Your task to perform on an android device: When is my next meeting? Image 0: 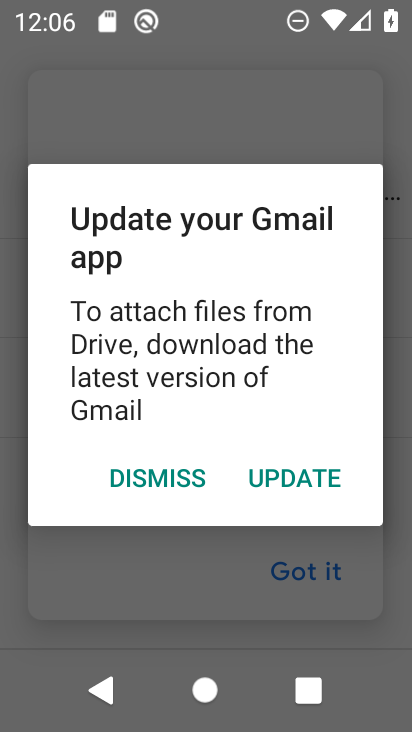
Step 0: press home button
Your task to perform on an android device: When is my next meeting? Image 1: 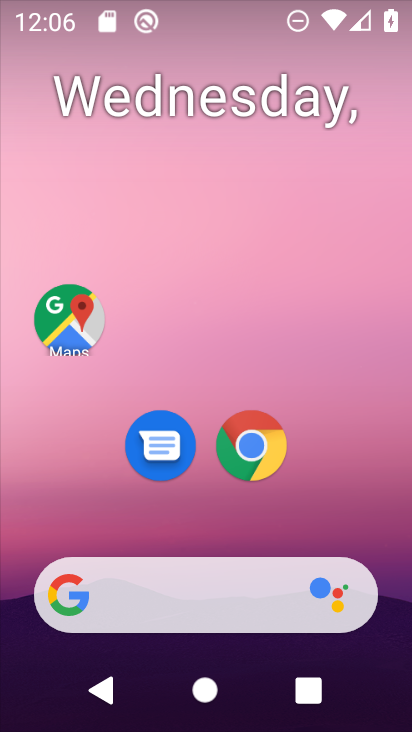
Step 1: drag from (359, 449) to (140, 0)
Your task to perform on an android device: When is my next meeting? Image 2: 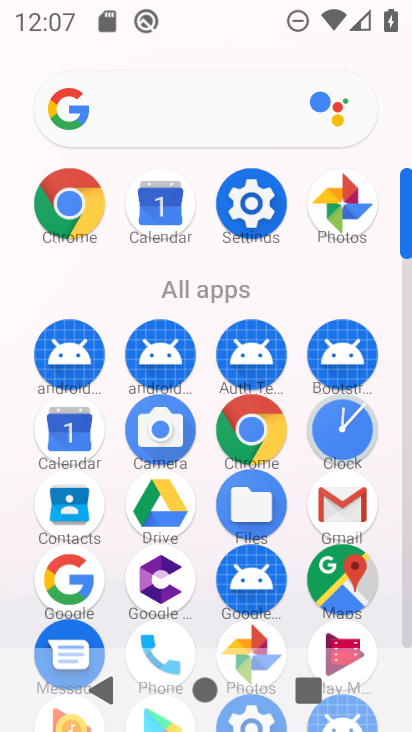
Step 2: click (73, 428)
Your task to perform on an android device: When is my next meeting? Image 3: 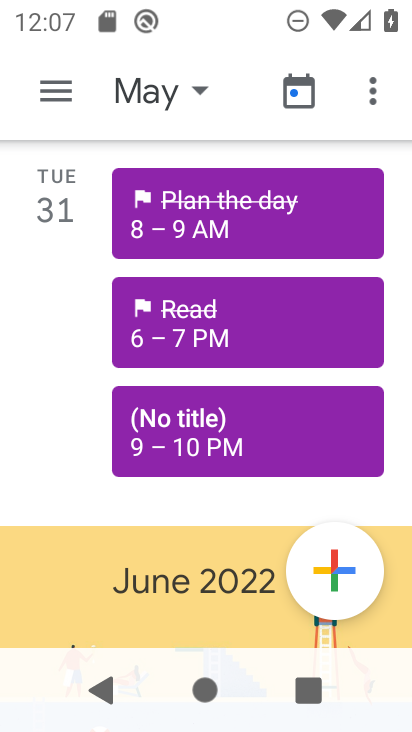
Step 3: task complete